Your task to perform on an android device: Search for pizza restaurants on Maps Image 0: 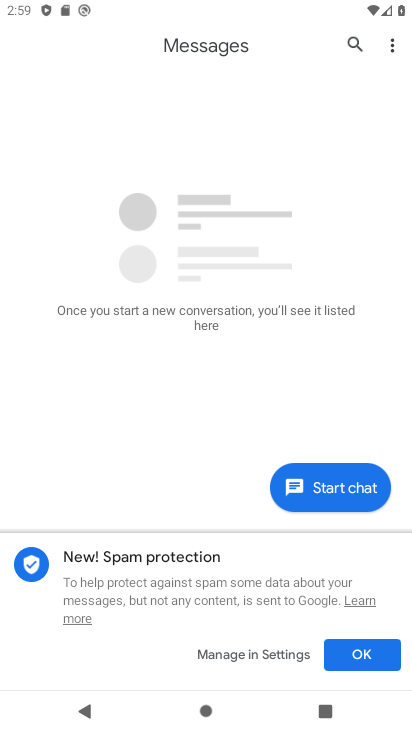
Step 0: press home button
Your task to perform on an android device: Search for pizza restaurants on Maps Image 1: 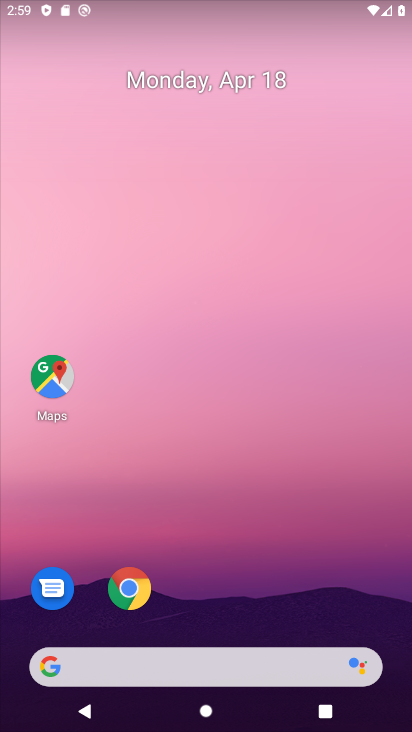
Step 1: click (64, 365)
Your task to perform on an android device: Search for pizza restaurants on Maps Image 2: 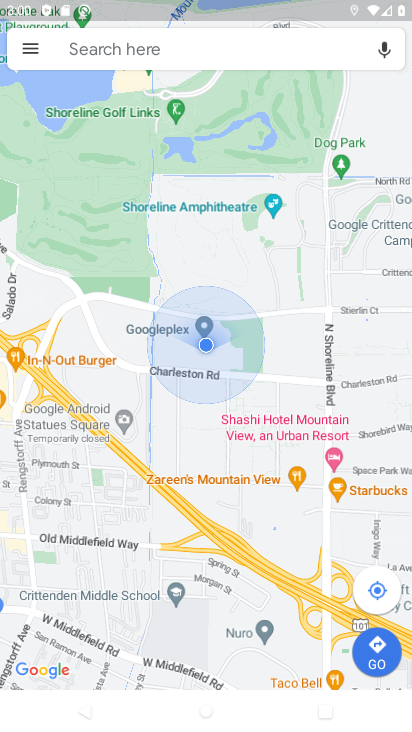
Step 2: click (194, 41)
Your task to perform on an android device: Search for pizza restaurants on Maps Image 3: 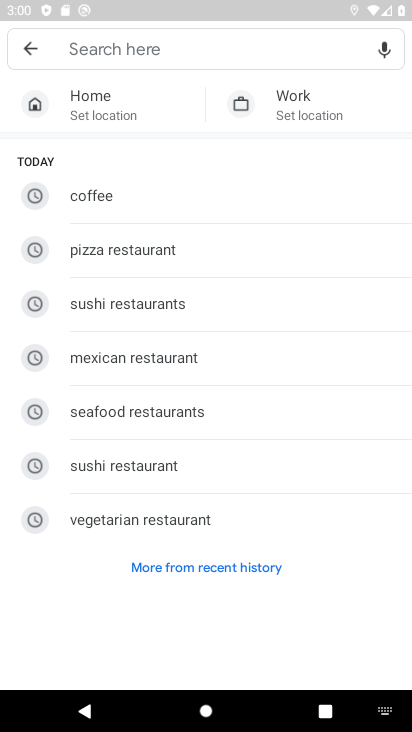
Step 3: click (132, 243)
Your task to perform on an android device: Search for pizza restaurants on Maps Image 4: 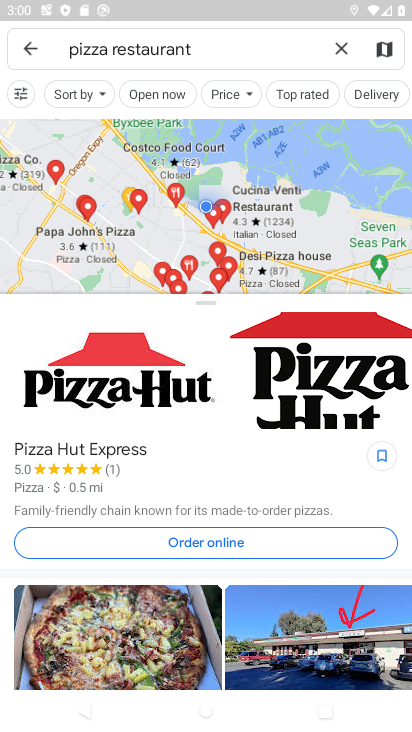
Step 4: task complete